Your task to perform on an android device: Check the weather Image 0: 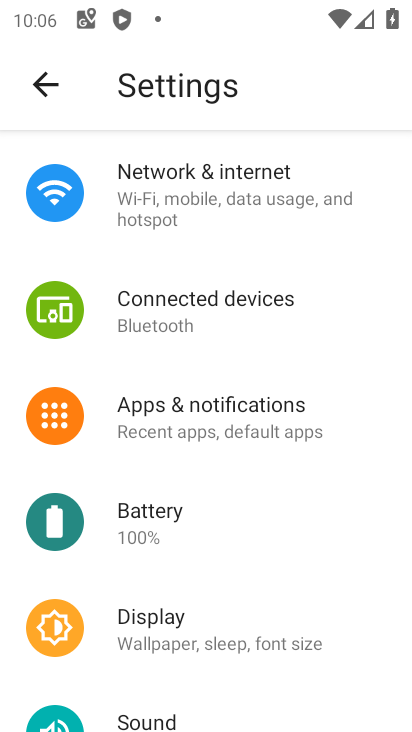
Step 0: press home button
Your task to perform on an android device: Check the weather Image 1: 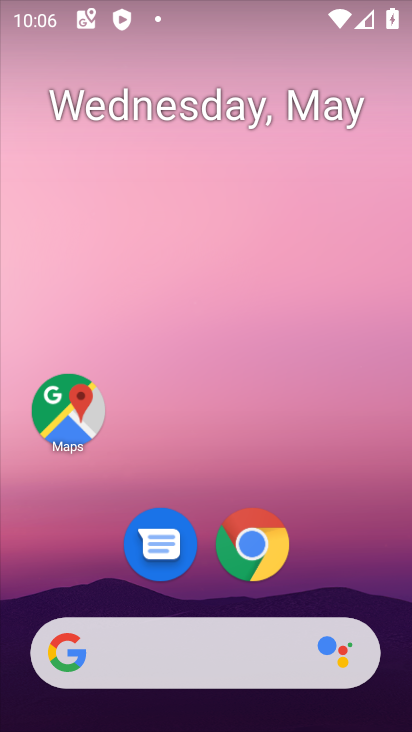
Step 1: drag from (77, 287) to (407, 261)
Your task to perform on an android device: Check the weather Image 2: 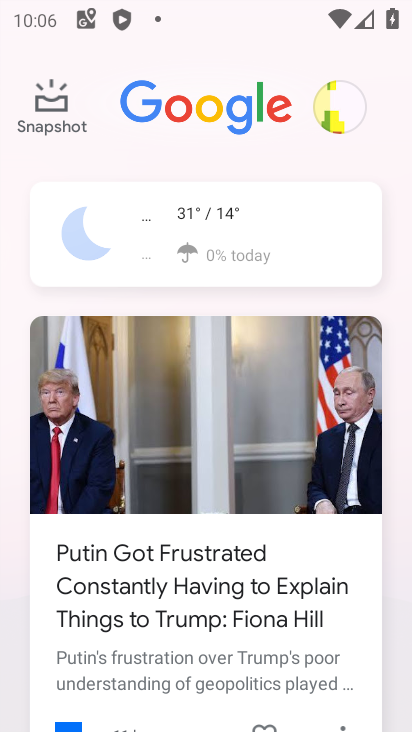
Step 2: click (236, 227)
Your task to perform on an android device: Check the weather Image 3: 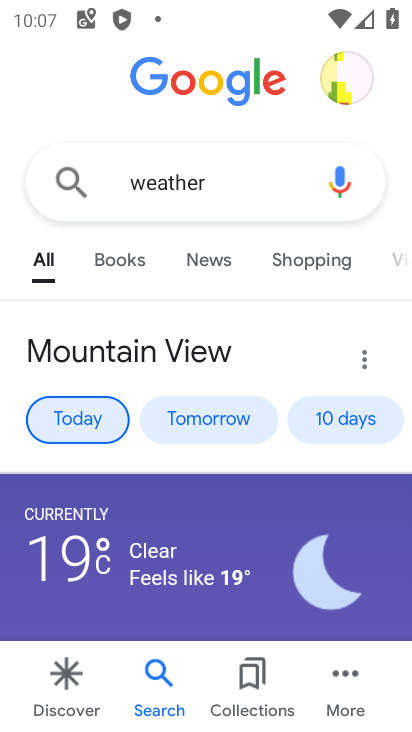
Step 3: task complete